Your task to perform on an android device: toggle improve location accuracy Image 0: 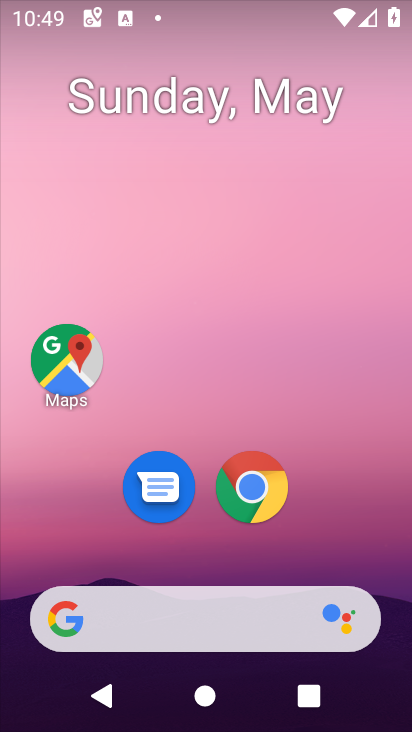
Step 0: drag from (260, 555) to (154, 4)
Your task to perform on an android device: toggle improve location accuracy Image 1: 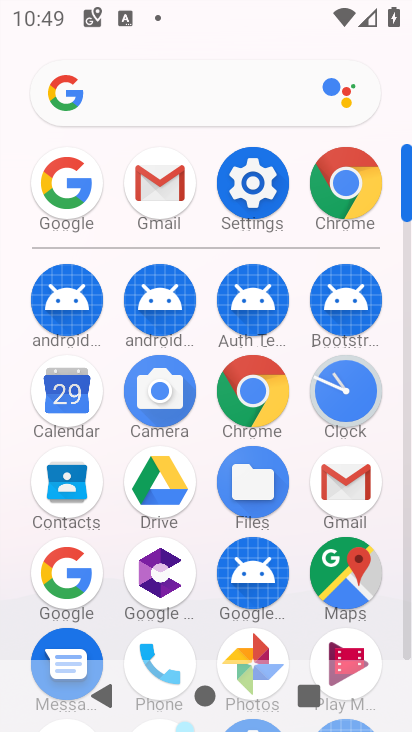
Step 1: click (266, 191)
Your task to perform on an android device: toggle improve location accuracy Image 2: 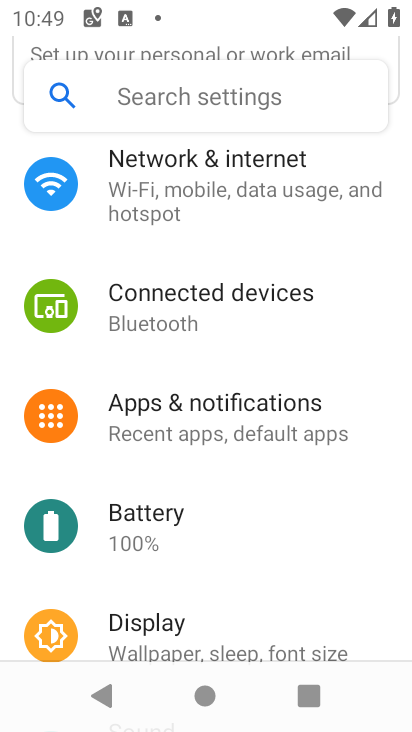
Step 2: drag from (224, 556) to (249, 344)
Your task to perform on an android device: toggle improve location accuracy Image 3: 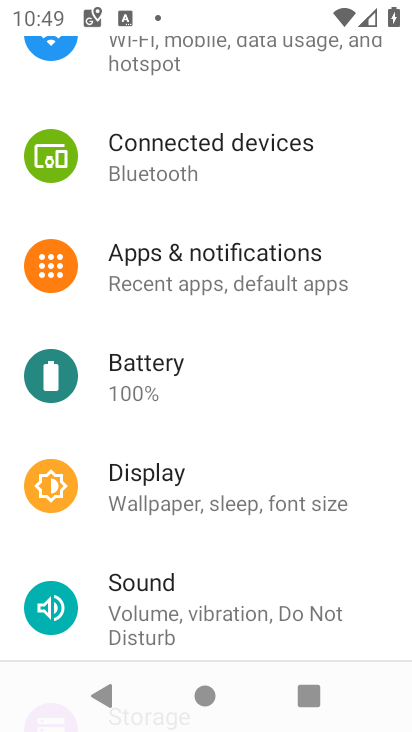
Step 3: drag from (204, 577) to (213, 253)
Your task to perform on an android device: toggle improve location accuracy Image 4: 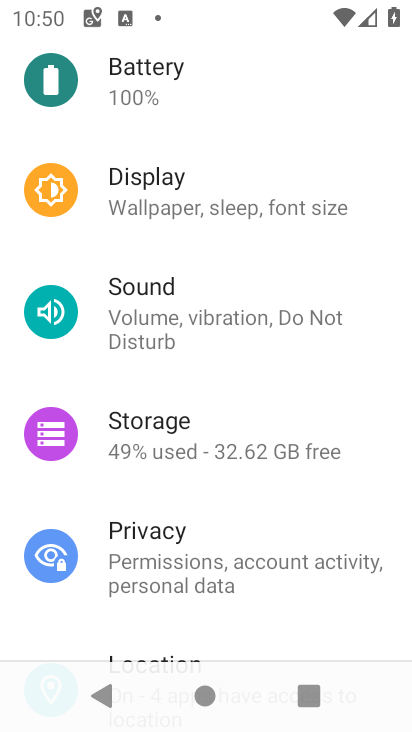
Step 4: drag from (174, 491) to (193, 292)
Your task to perform on an android device: toggle improve location accuracy Image 5: 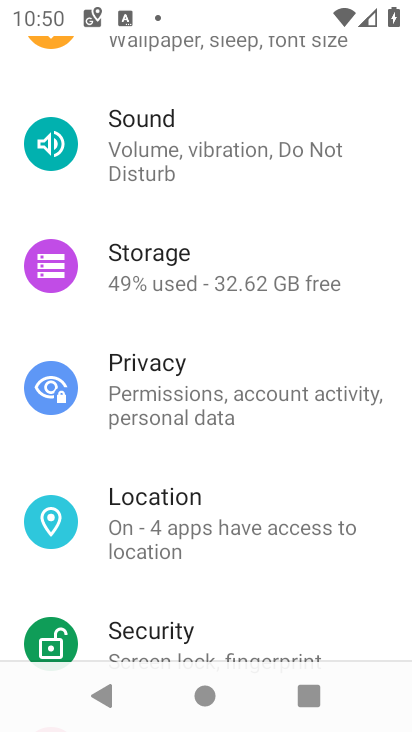
Step 5: click (159, 528)
Your task to perform on an android device: toggle improve location accuracy Image 6: 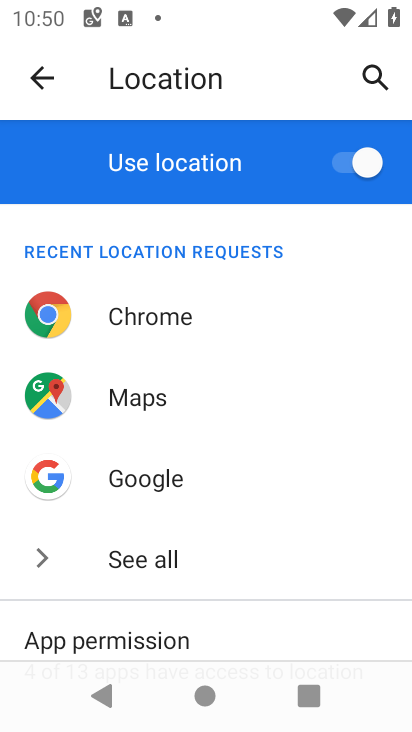
Step 6: drag from (167, 563) to (70, 10)
Your task to perform on an android device: toggle improve location accuracy Image 7: 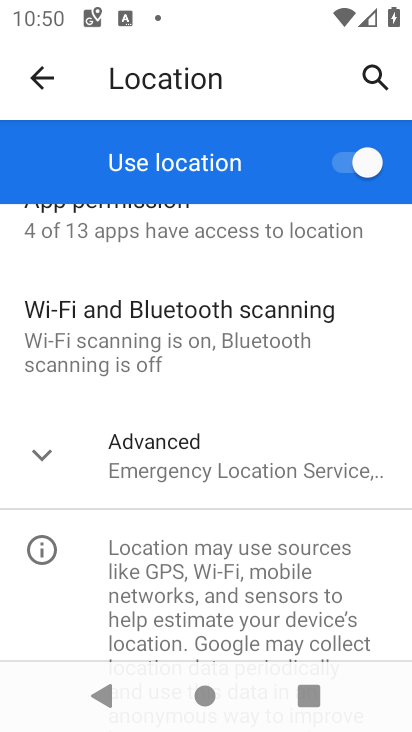
Step 7: click (147, 450)
Your task to perform on an android device: toggle improve location accuracy Image 8: 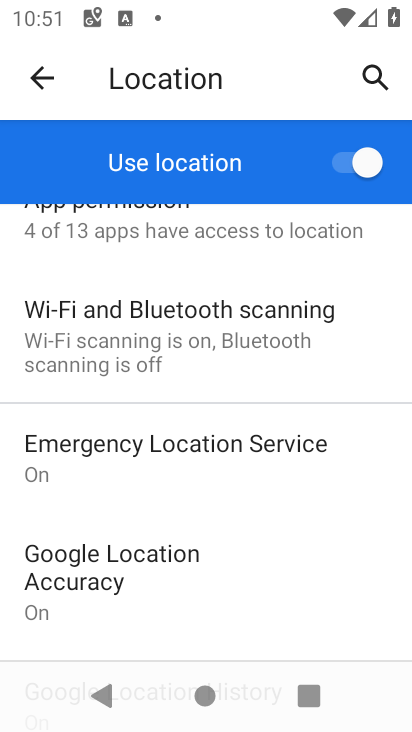
Step 8: drag from (226, 563) to (210, 349)
Your task to perform on an android device: toggle improve location accuracy Image 9: 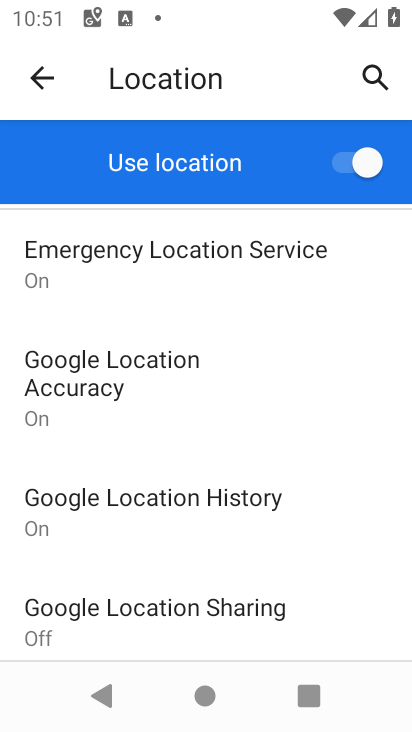
Step 9: click (178, 371)
Your task to perform on an android device: toggle improve location accuracy Image 10: 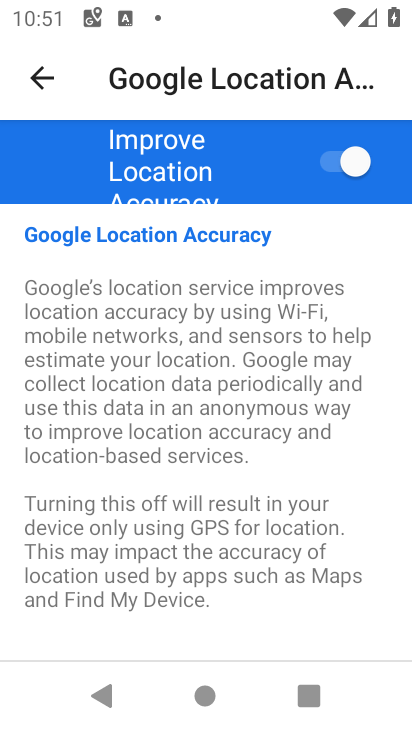
Step 10: click (345, 164)
Your task to perform on an android device: toggle improve location accuracy Image 11: 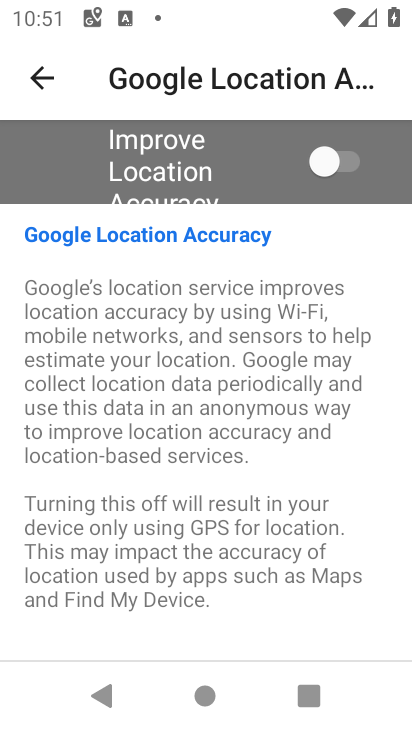
Step 11: task complete